Your task to perform on an android device: Do I have any events this weekend? Image 0: 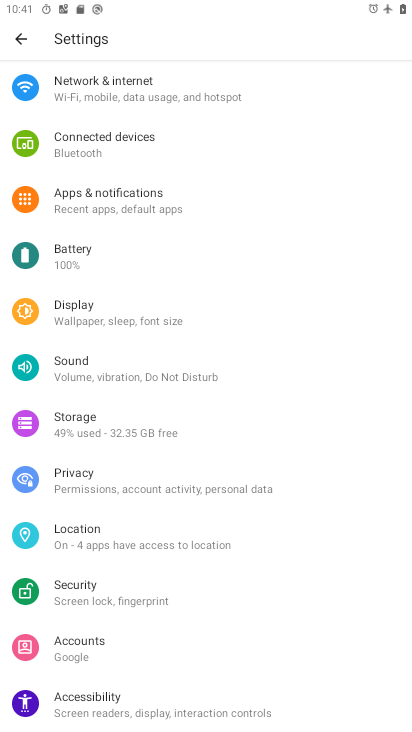
Step 0: press home button
Your task to perform on an android device: Do I have any events this weekend? Image 1: 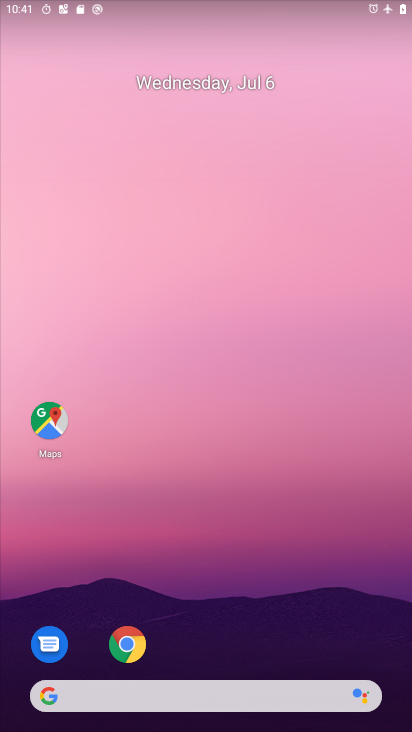
Step 1: drag from (206, 676) to (329, 13)
Your task to perform on an android device: Do I have any events this weekend? Image 2: 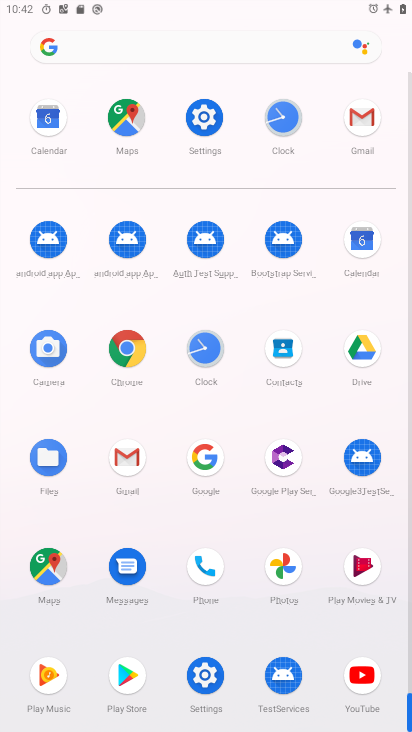
Step 2: drag from (164, 499) to (194, 319)
Your task to perform on an android device: Do I have any events this weekend? Image 3: 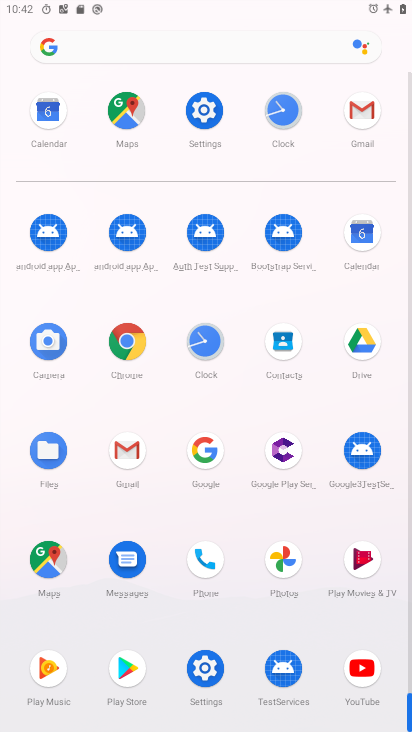
Step 3: click (367, 243)
Your task to perform on an android device: Do I have any events this weekend? Image 4: 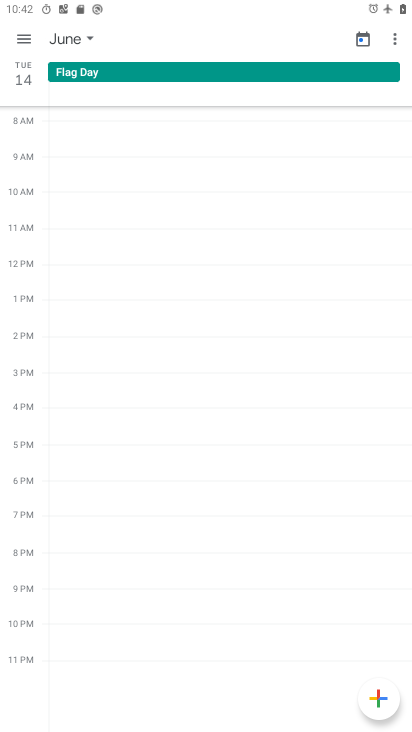
Step 4: click (73, 37)
Your task to perform on an android device: Do I have any events this weekend? Image 5: 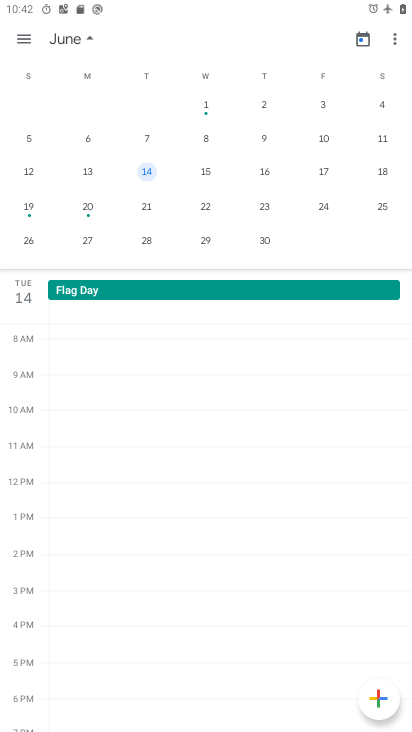
Step 5: click (378, 175)
Your task to perform on an android device: Do I have any events this weekend? Image 6: 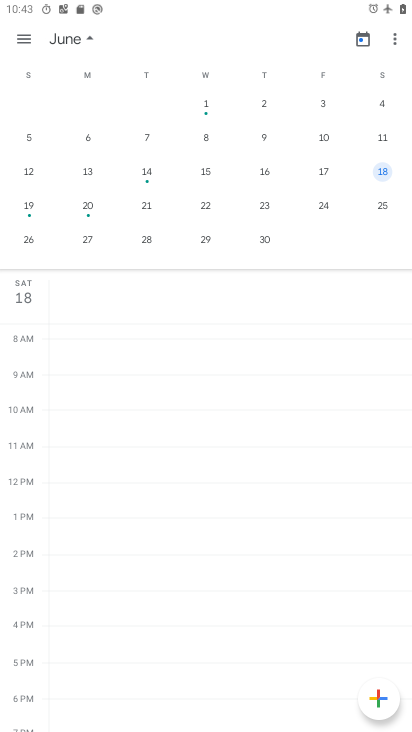
Step 6: task complete